Your task to perform on an android device: Open sound settings Image 0: 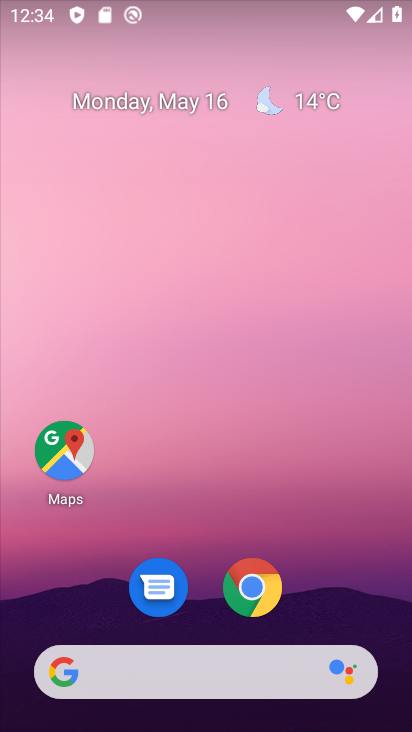
Step 0: click (252, 581)
Your task to perform on an android device: Open sound settings Image 1: 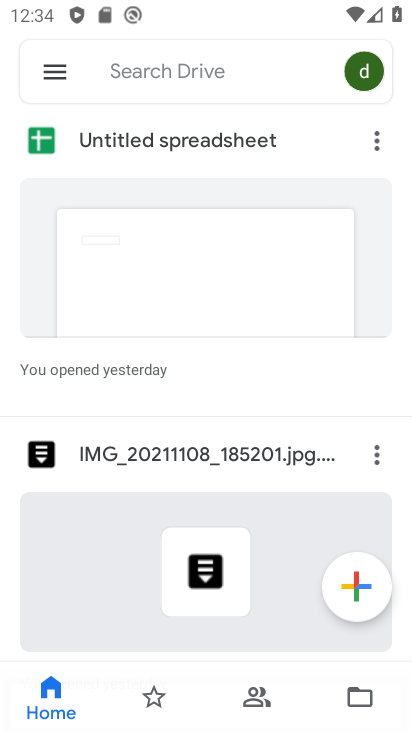
Step 1: press home button
Your task to perform on an android device: Open sound settings Image 2: 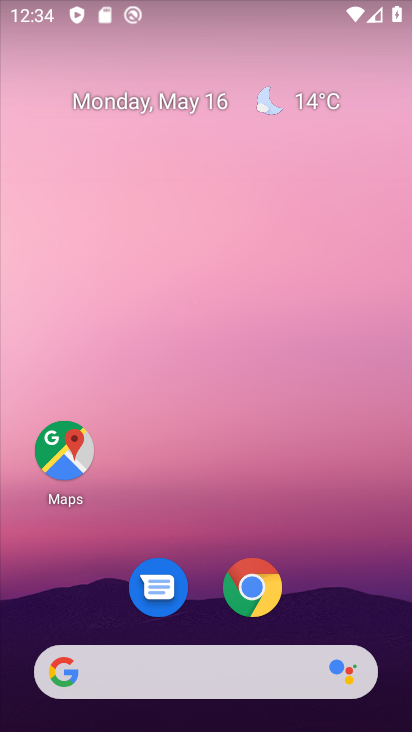
Step 2: drag from (209, 724) to (240, 193)
Your task to perform on an android device: Open sound settings Image 3: 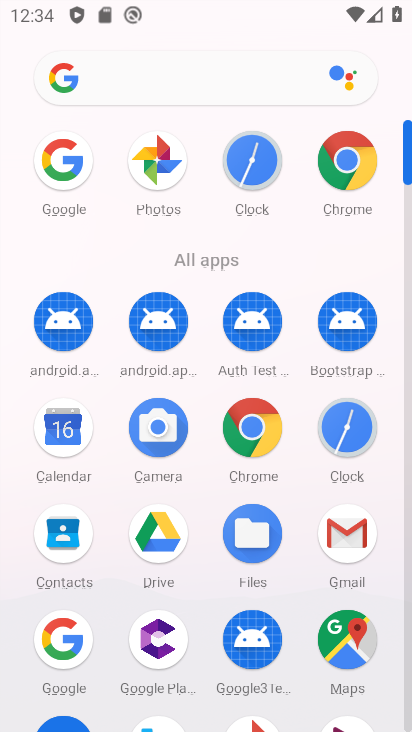
Step 3: drag from (212, 617) to (211, 238)
Your task to perform on an android device: Open sound settings Image 4: 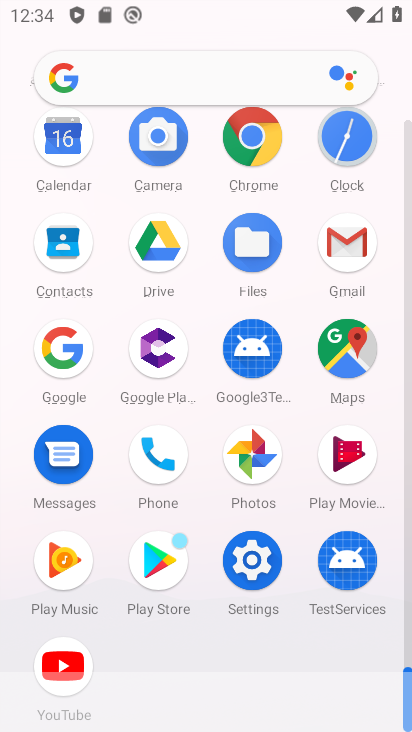
Step 4: click (259, 567)
Your task to perform on an android device: Open sound settings Image 5: 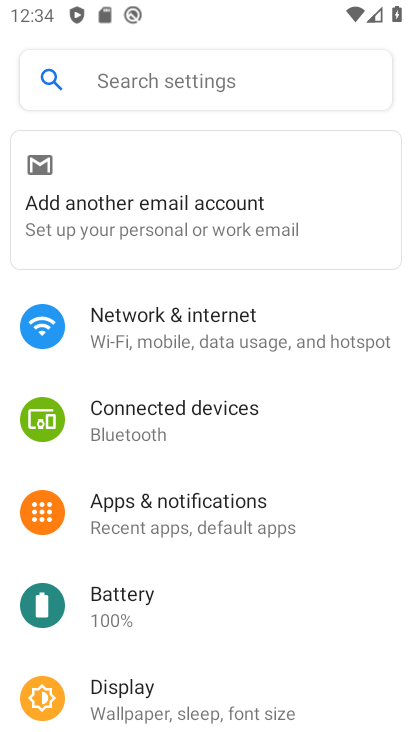
Step 5: drag from (240, 662) to (255, 370)
Your task to perform on an android device: Open sound settings Image 6: 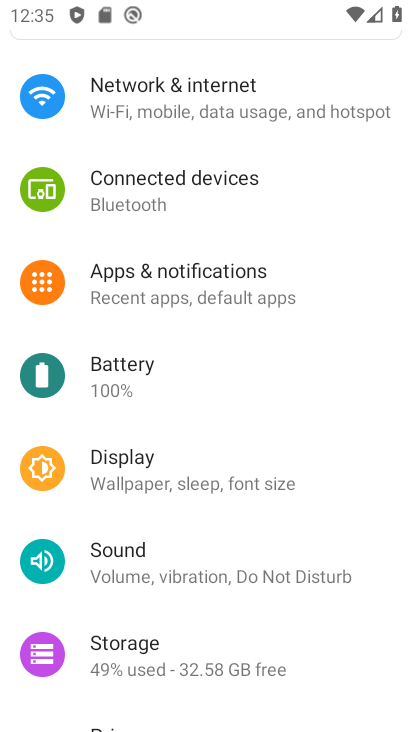
Step 6: click (141, 567)
Your task to perform on an android device: Open sound settings Image 7: 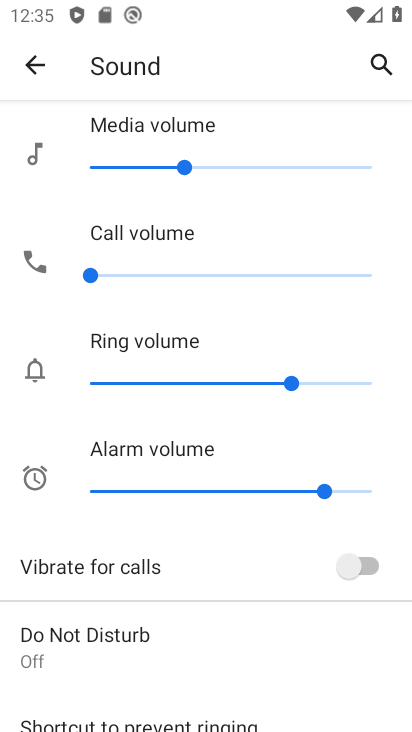
Step 7: task complete